Your task to perform on an android device: turn off location history Image 0: 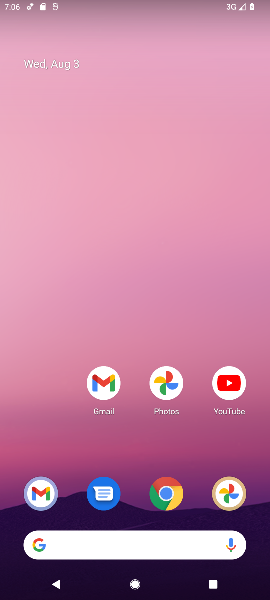
Step 0: drag from (130, 502) to (130, 120)
Your task to perform on an android device: turn off location history Image 1: 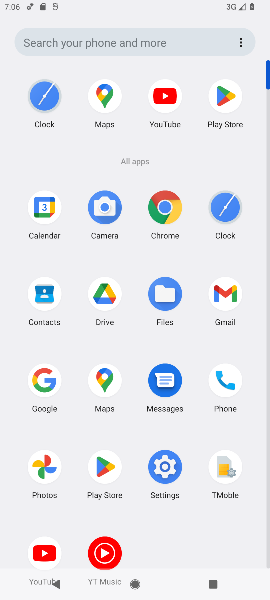
Step 1: click (165, 461)
Your task to perform on an android device: turn off location history Image 2: 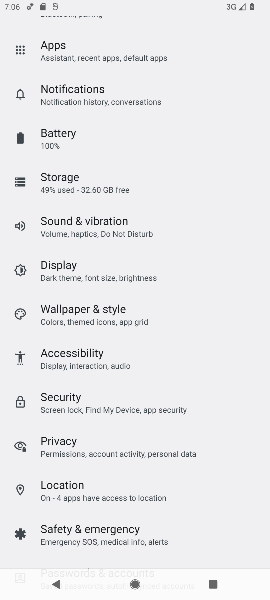
Step 2: click (70, 484)
Your task to perform on an android device: turn off location history Image 3: 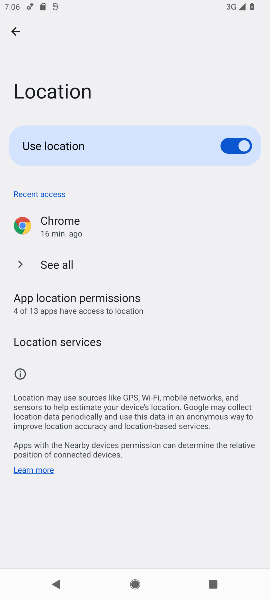
Step 3: click (54, 293)
Your task to perform on an android device: turn off location history Image 4: 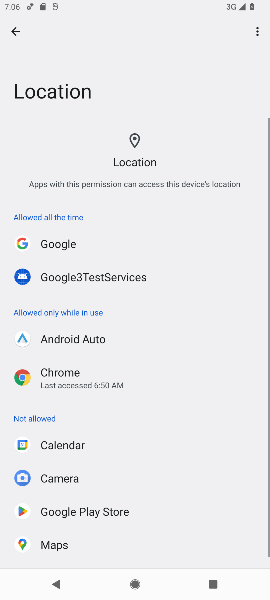
Step 4: click (13, 37)
Your task to perform on an android device: turn off location history Image 5: 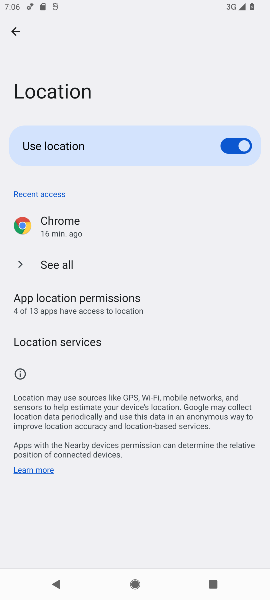
Step 5: click (44, 260)
Your task to perform on an android device: turn off location history Image 6: 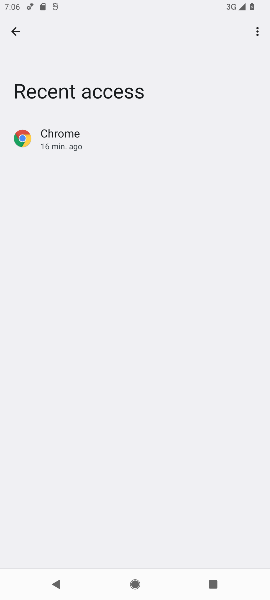
Step 6: click (11, 23)
Your task to perform on an android device: turn off location history Image 7: 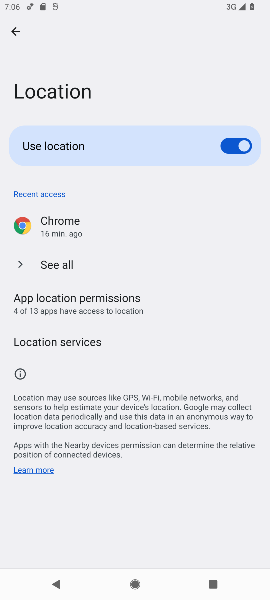
Step 7: click (48, 452)
Your task to perform on an android device: turn off location history Image 8: 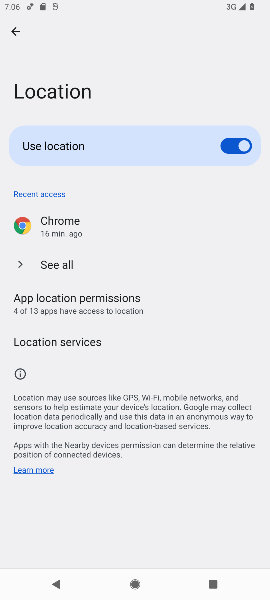
Step 8: click (28, 359)
Your task to perform on an android device: turn off location history Image 9: 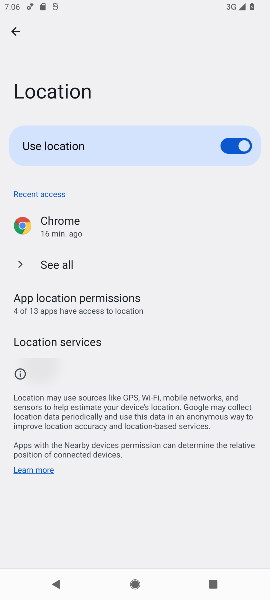
Step 9: click (28, 359)
Your task to perform on an android device: turn off location history Image 10: 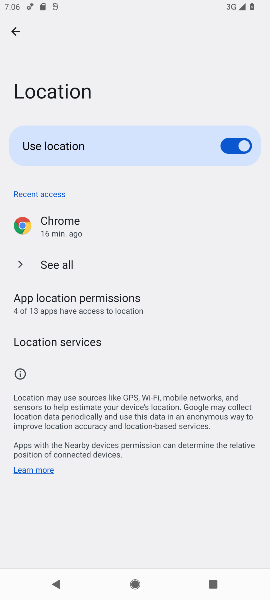
Step 10: click (71, 359)
Your task to perform on an android device: turn off location history Image 11: 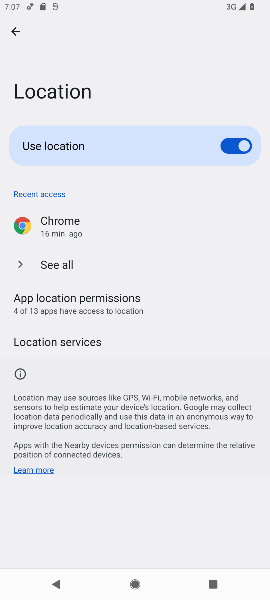
Step 11: click (85, 342)
Your task to perform on an android device: turn off location history Image 12: 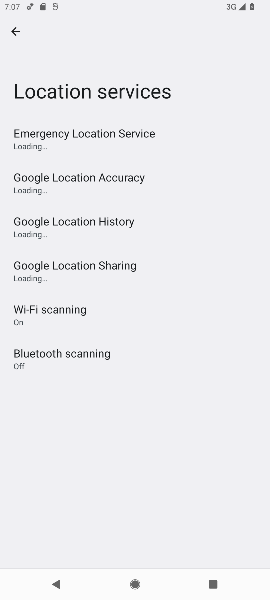
Step 12: click (92, 226)
Your task to perform on an android device: turn off location history Image 13: 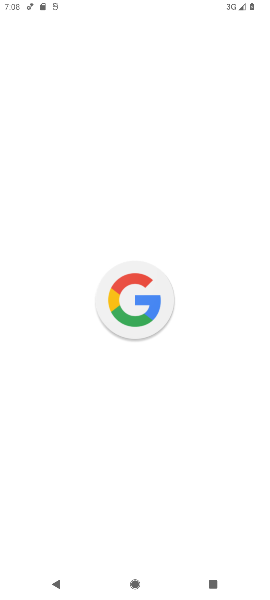
Step 13: task complete